Your task to perform on an android device: turn on location history Image 0: 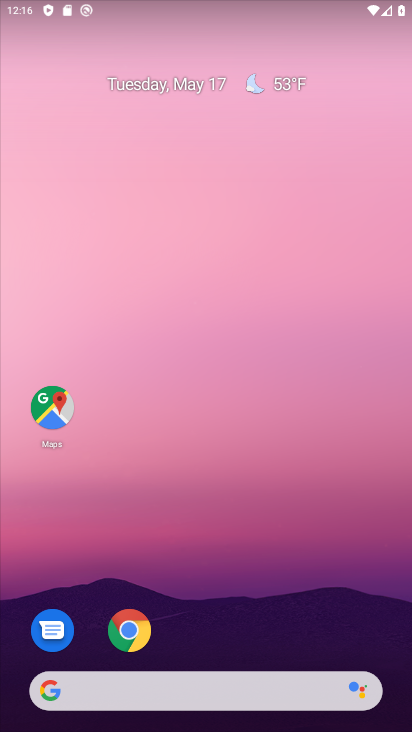
Step 0: drag from (241, 654) to (226, 286)
Your task to perform on an android device: turn on location history Image 1: 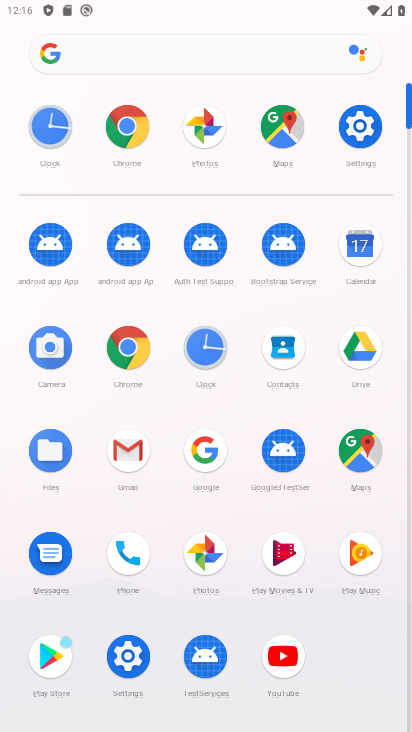
Step 1: click (376, 127)
Your task to perform on an android device: turn on location history Image 2: 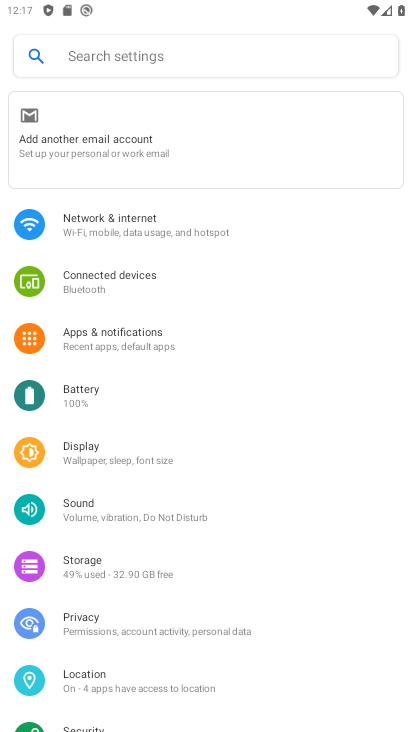
Step 2: drag from (219, 591) to (230, 437)
Your task to perform on an android device: turn on location history Image 3: 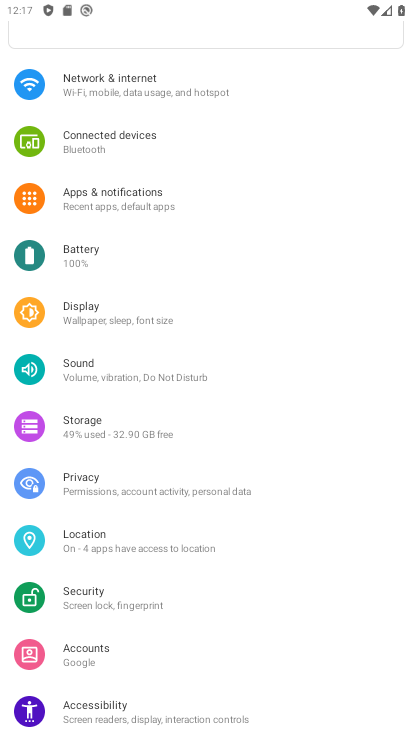
Step 3: click (177, 530)
Your task to perform on an android device: turn on location history Image 4: 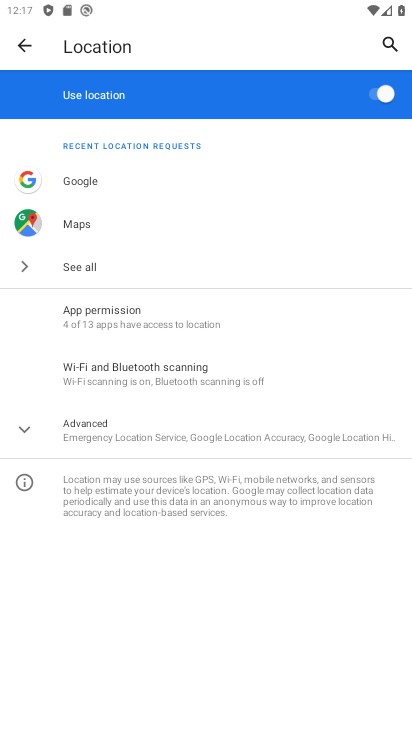
Step 4: click (140, 427)
Your task to perform on an android device: turn on location history Image 5: 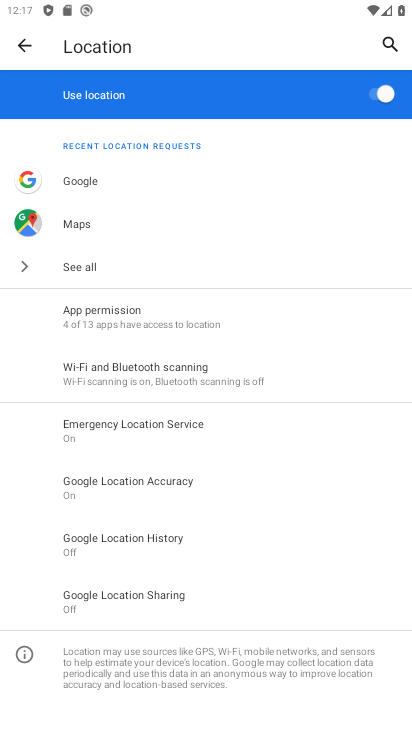
Step 5: click (180, 536)
Your task to perform on an android device: turn on location history Image 6: 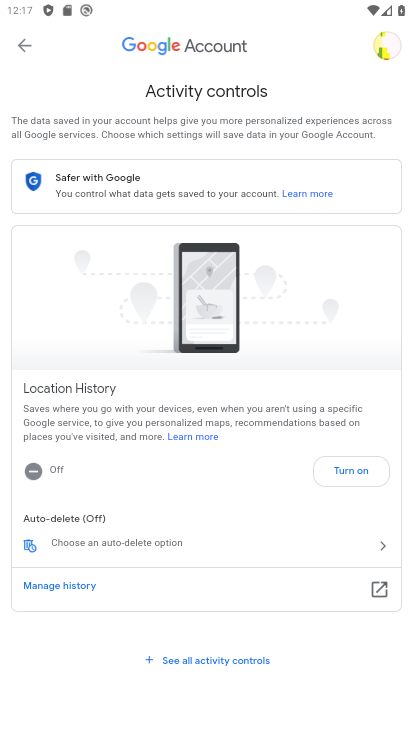
Step 6: click (355, 480)
Your task to perform on an android device: turn on location history Image 7: 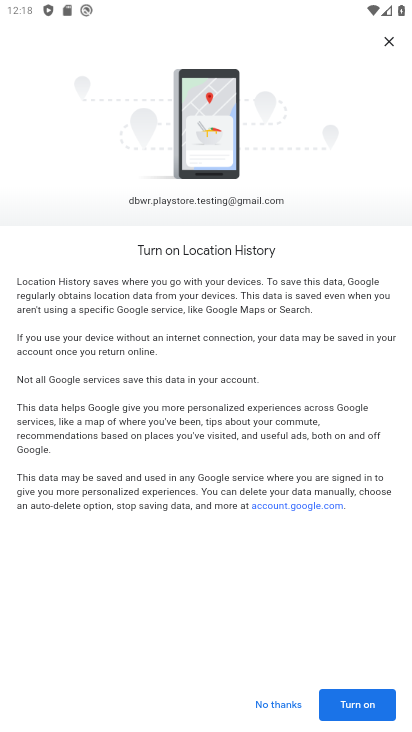
Step 7: click (361, 709)
Your task to perform on an android device: turn on location history Image 8: 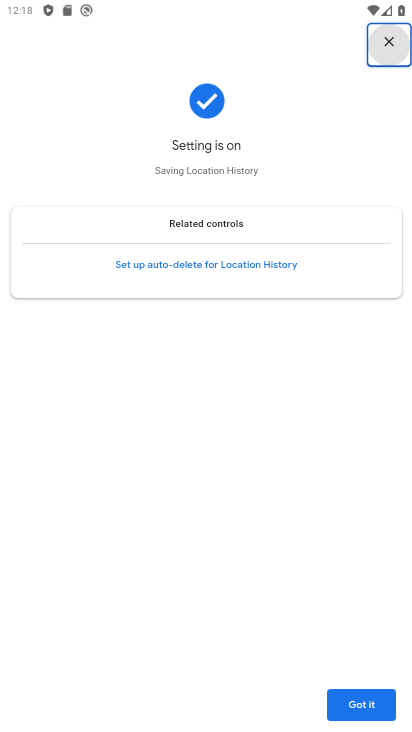
Step 8: click (358, 708)
Your task to perform on an android device: turn on location history Image 9: 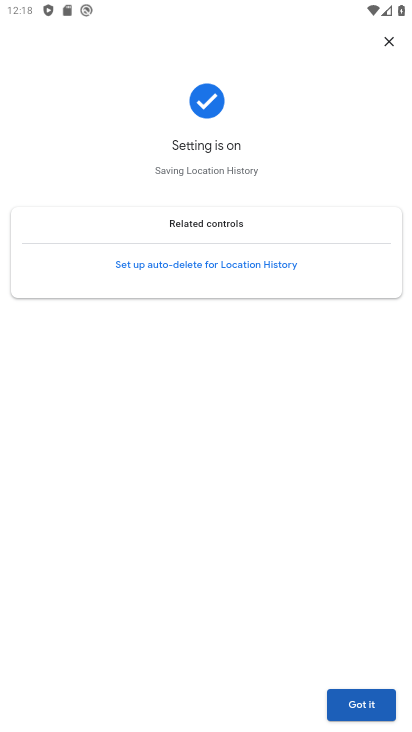
Step 9: click (353, 711)
Your task to perform on an android device: turn on location history Image 10: 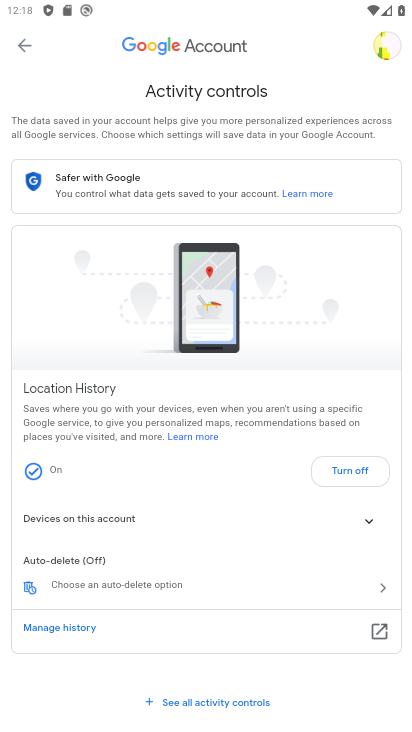
Step 10: task complete